Your task to perform on an android device: find photos in the google photos app Image 0: 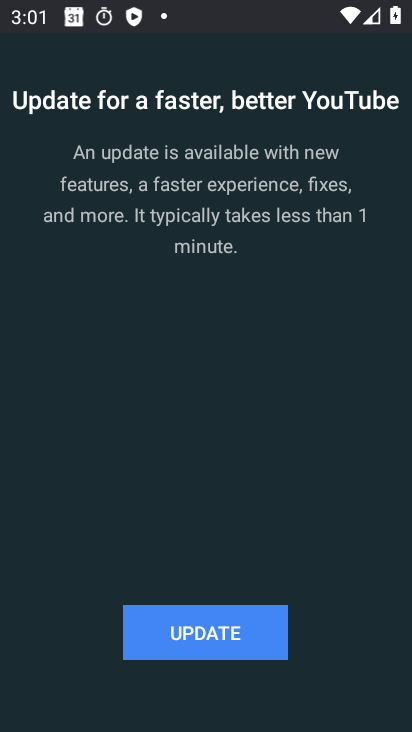
Step 0: press back button
Your task to perform on an android device: find photos in the google photos app Image 1: 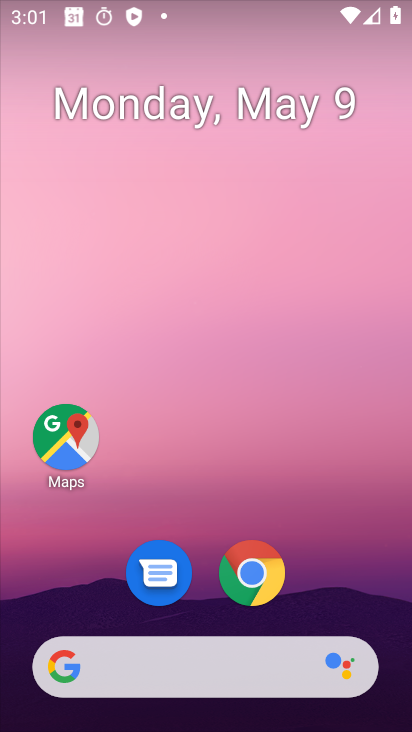
Step 1: drag from (309, 587) to (260, 157)
Your task to perform on an android device: find photos in the google photos app Image 2: 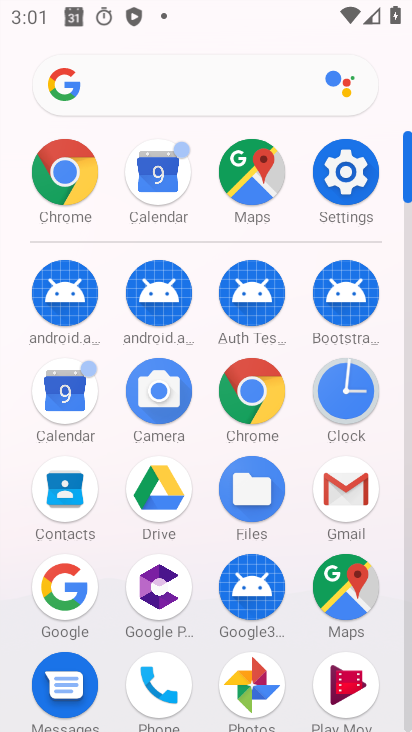
Step 2: click (263, 682)
Your task to perform on an android device: find photos in the google photos app Image 3: 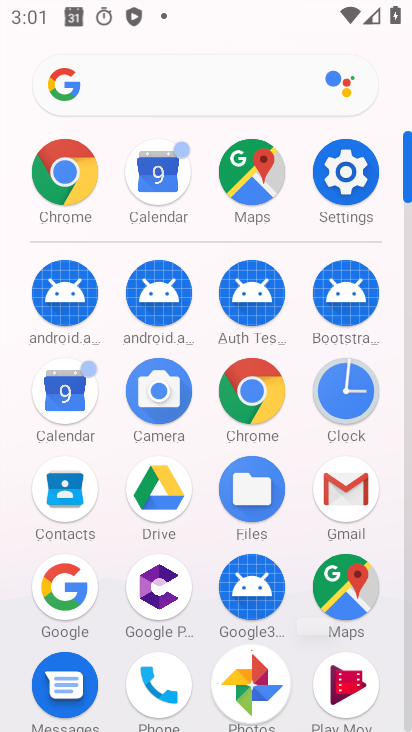
Step 3: click (259, 686)
Your task to perform on an android device: find photos in the google photos app Image 4: 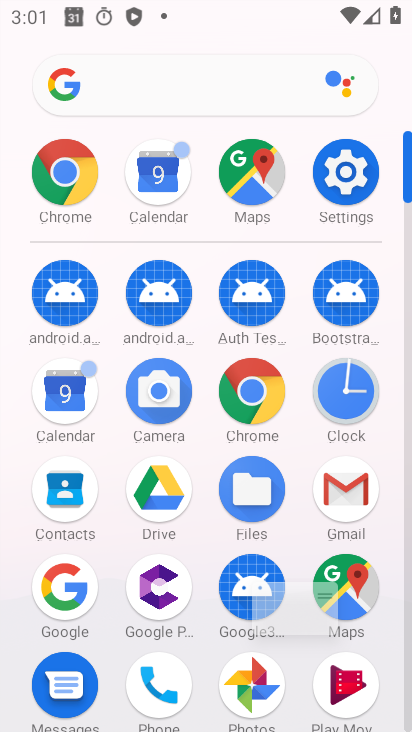
Step 4: click (258, 687)
Your task to perform on an android device: find photos in the google photos app Image 5: 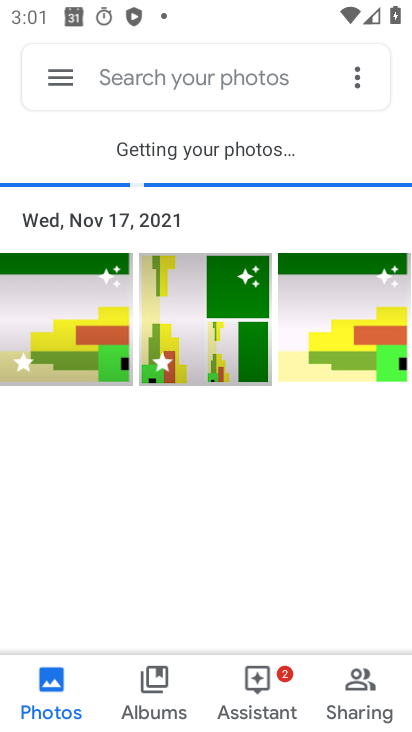
Step 5: task complete